Your task to perform on an android device: Open accessibility settings Image 0: 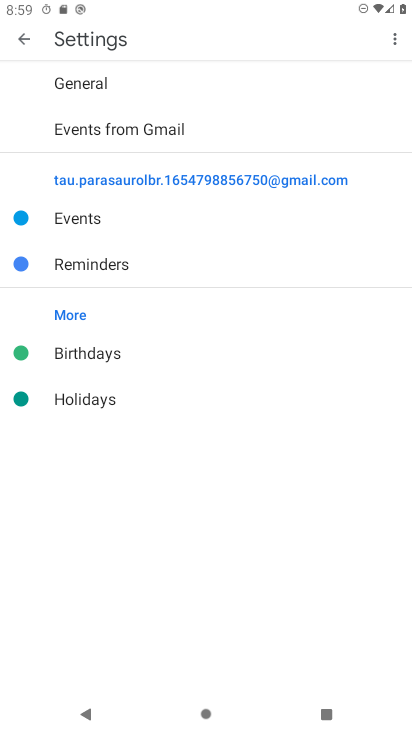
Step 0: drag from (282, 684) to (213, 194)
Your task to perform on an android device: Open accessibility settings Image 1: 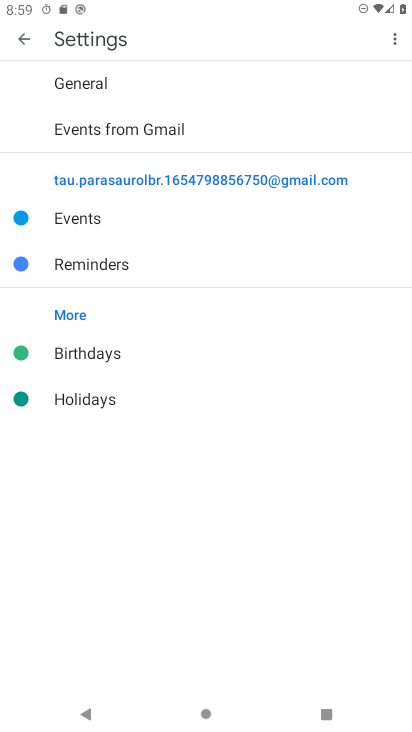
Step 1: click (21, 39)
Your task to perform on an android device: Open accessibility settings Image 2: 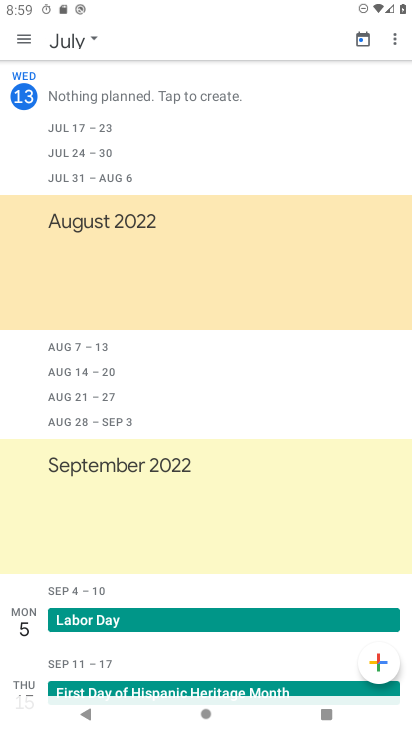
Step 2: press back button
Your task to perform on an android device: Open accessibility settings Image 3: 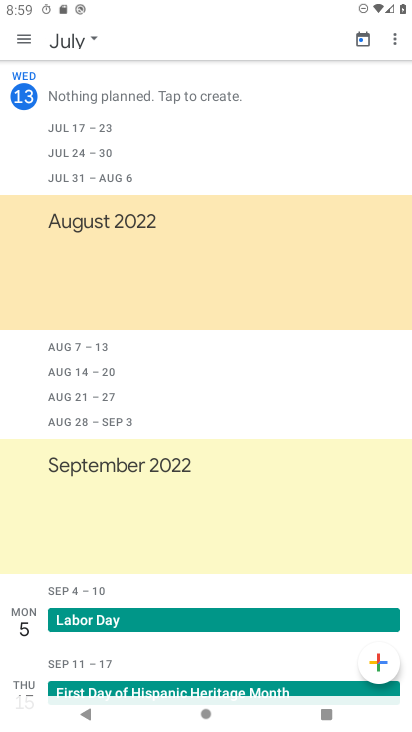
Step 3: press back button
Your task to perform on an android device: Open accessibility settings Image 4: 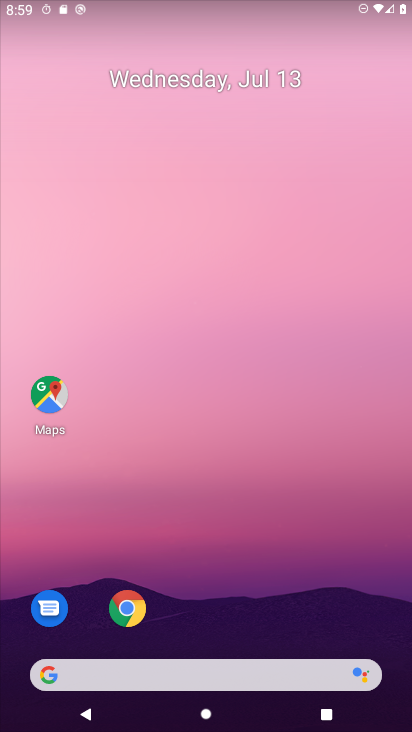
Step 4: drag from (255, 675) to (188, 286)
Your task to perform on an android device: Open accessibility settings Image 5: 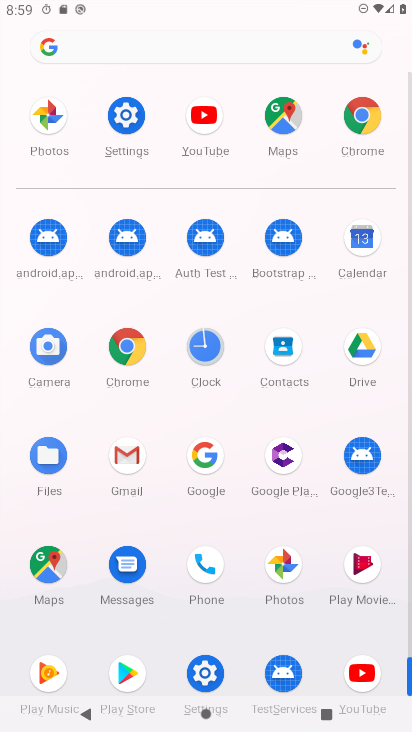
Step 5: click (198, 666)
Your task to perform on an android device: Open accessibility settings Image 6: 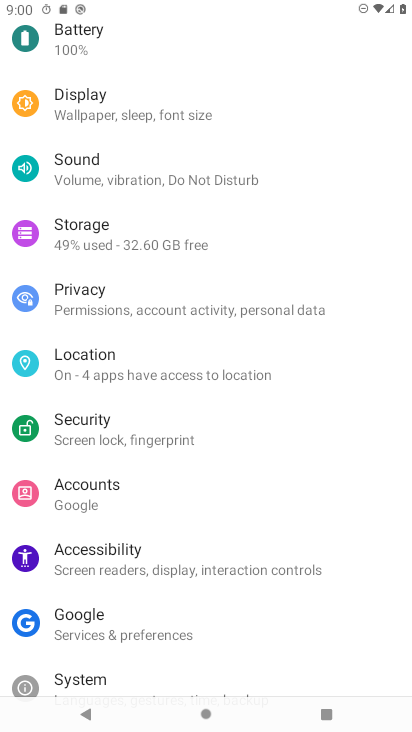
Step 6: click (107, 558)
Your task to perform on an android device: Open accessibility settings Image 7: 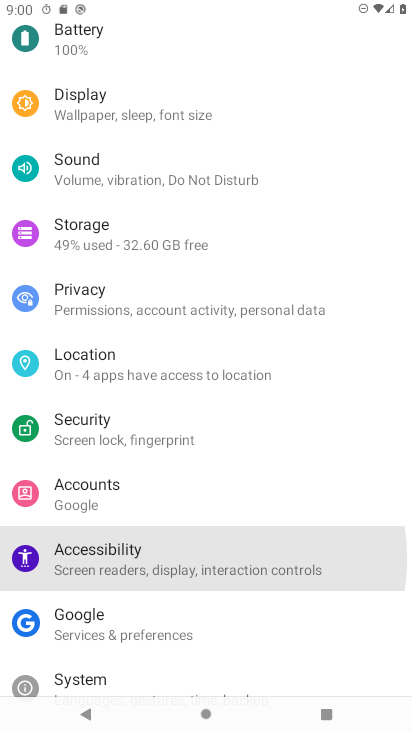
Step 7: click (107, 560)
Your task to perform on an android device: Open accessibility settings Image 8: 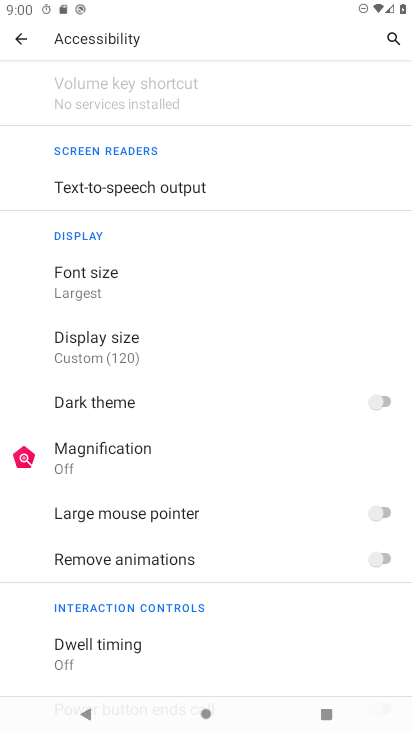
Step 8: task complete